Your task to perform on an android device: Open CNN.com Image 0: 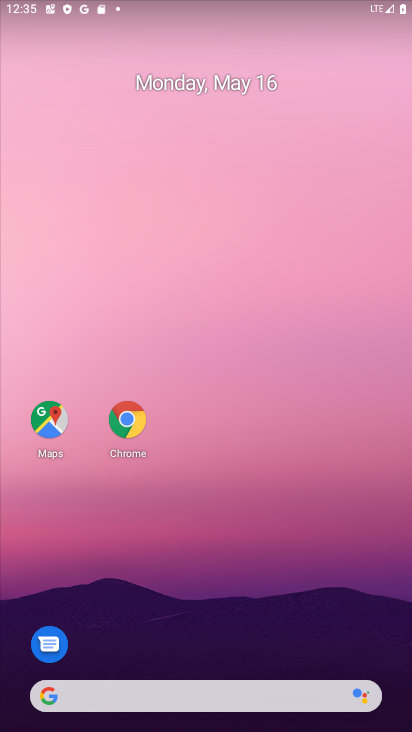
Step 0: click (151, 682)
Your task to perform on an android device: Open CNN.com Image 1: 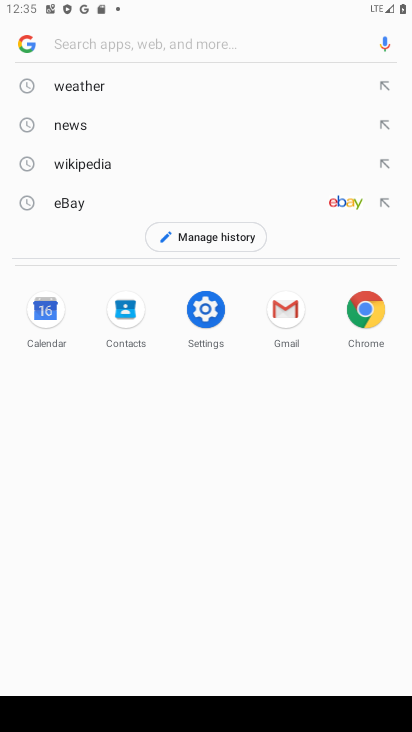
Step 1: type "cnn"
Your task to perform on an android device: Open CNN.com Image 2: 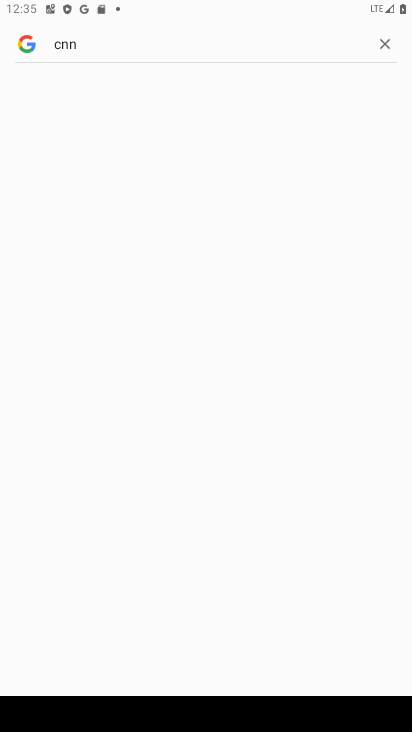
Step 2: click (197, 100)
Your task to perform on an android device: Open CNN.com Image 3: 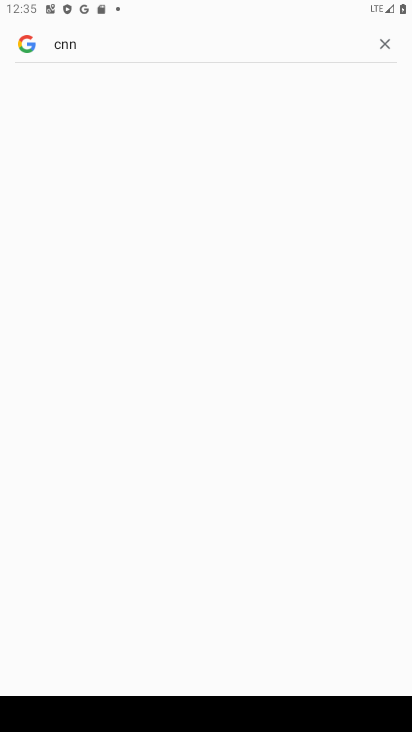
Step 3: click (373, 41)
Your task to perform on an android device: Open CNN.com Image 4: 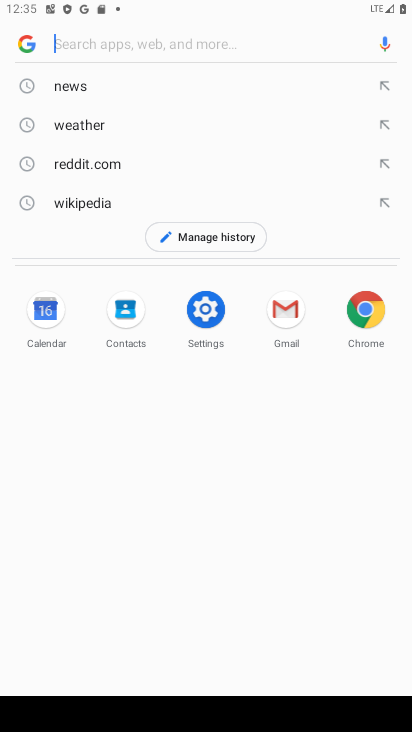
Step 4: click (109, 46)
Your task to perform on an android device: Open CNN.com Image 5: 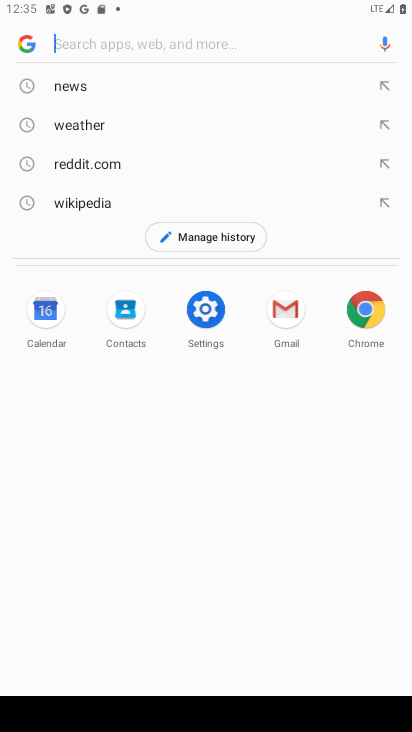
Step 5: type "cnn"
Your task to perform on an android device: Open CNN.com Image 6: 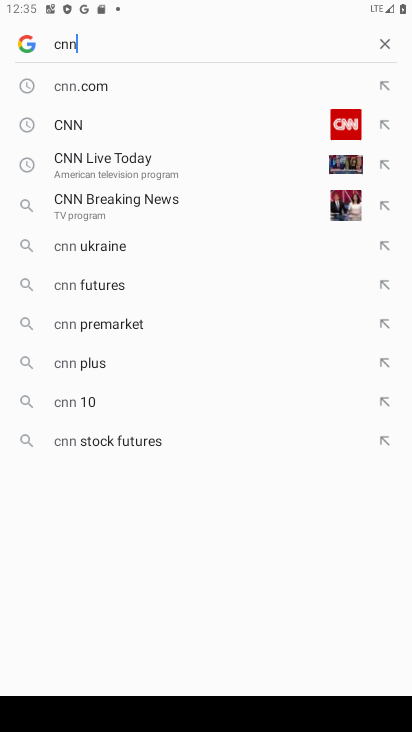
Step 6: click (106, 77)
Your task to perform on an android device: Open CNN.com Image 7: 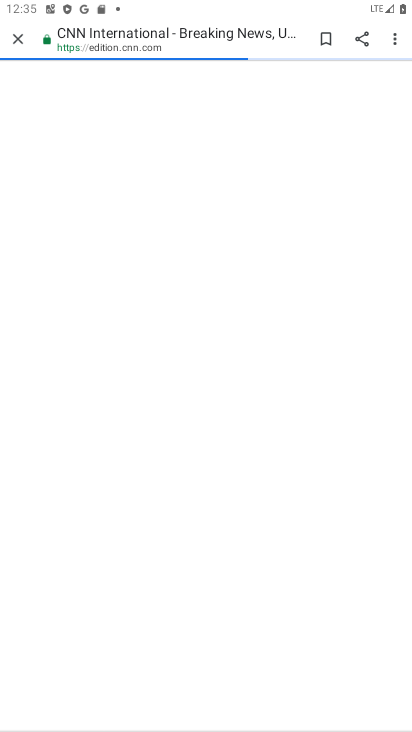
Step 7: task complete